Your task to perform on an android device: What's on my calendar today? Image 0: 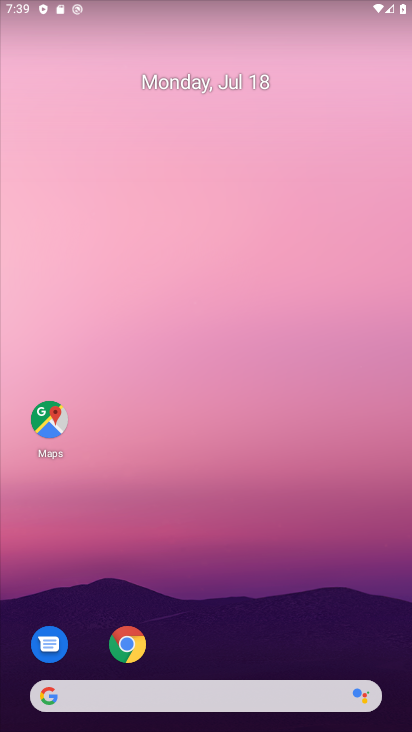
Step 0: press home button
Your task to perform on an android device: What's on my calendar today? Image 1: 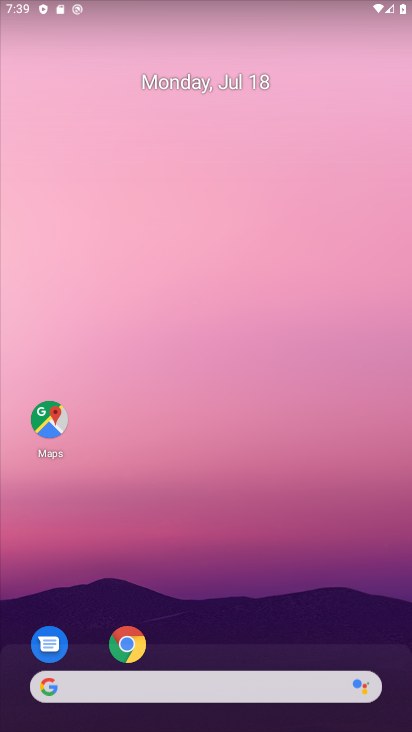
Step 1: drag from (211, 640) to (241, 34)
Your task to perform on an android device: What's on my calendar today? Image 2: 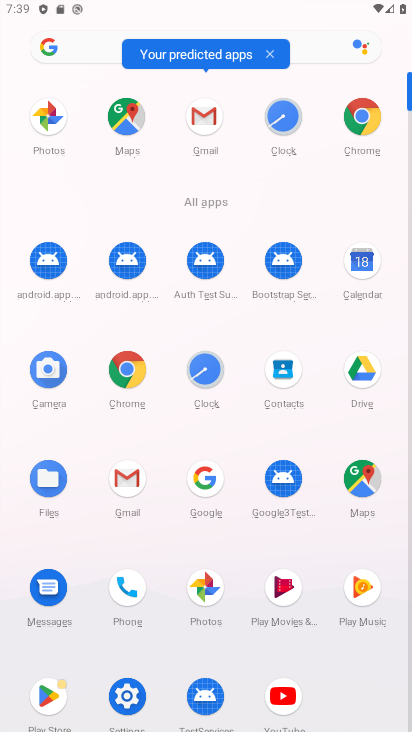
Step 2: click (362, 264)
Your task to perform on an android device: What's on my calendar today? Image 3: 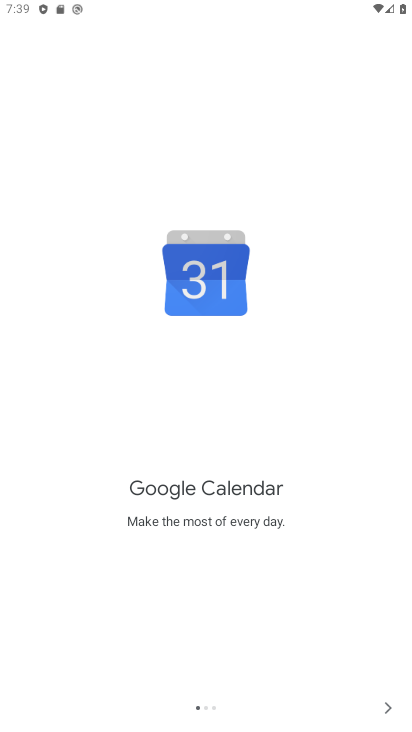
Step 3: click (391, 700)
Your task to perform on an android device: What's on my calendar today? Image 4: 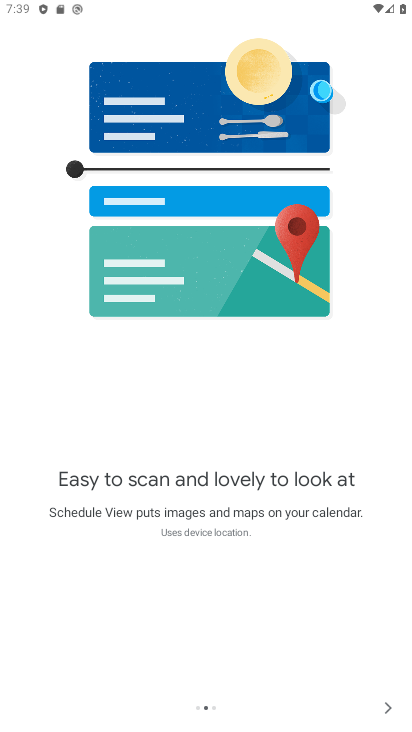
Step 4: click (390, 698)
Your task to perform on an android device: What's on my calendar today? Image 5: 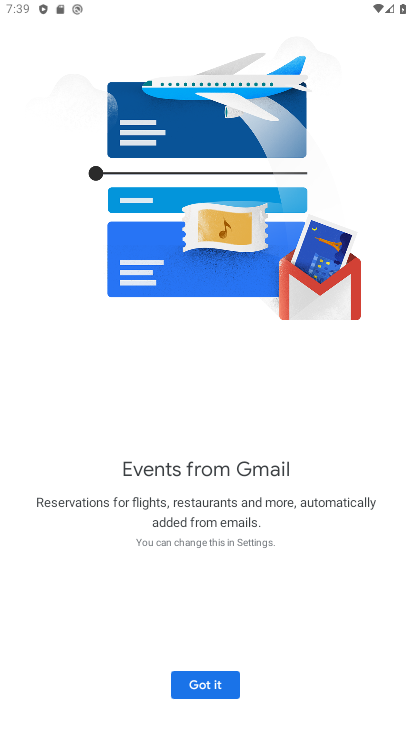
Step 5: click (199, 679)
Your task to perform on an android device: What's on my calendar today? Image 6: 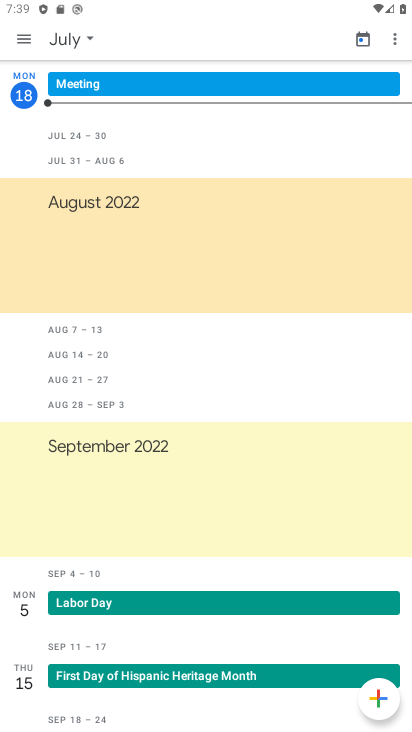
Step 6: click (74, 37)
Your task to perform on an android device: What's on my calendar today? Image 7: 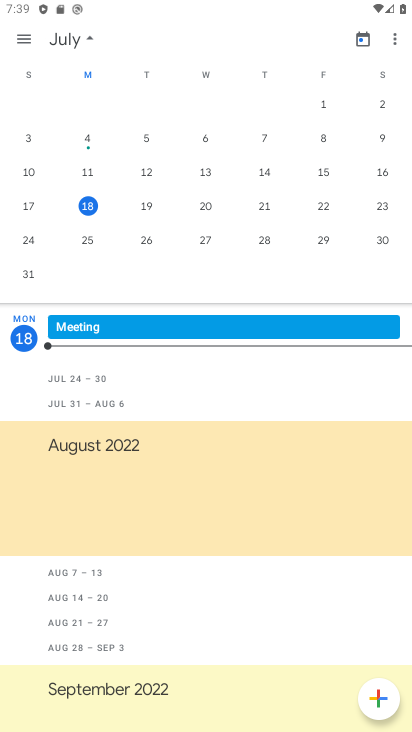
Step 7: click (89, 210)
Your task to perform on an android device: What's on my calendar today? Image 8: 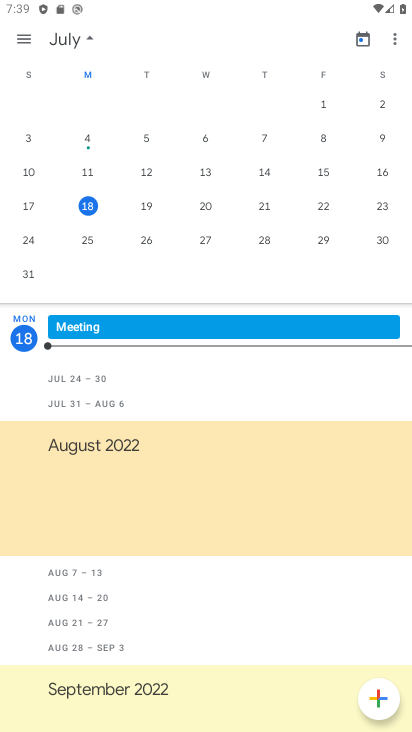
Step 8: click (86, 33)
Your task to perform on an android device: What's on my calendar today? Image 9: 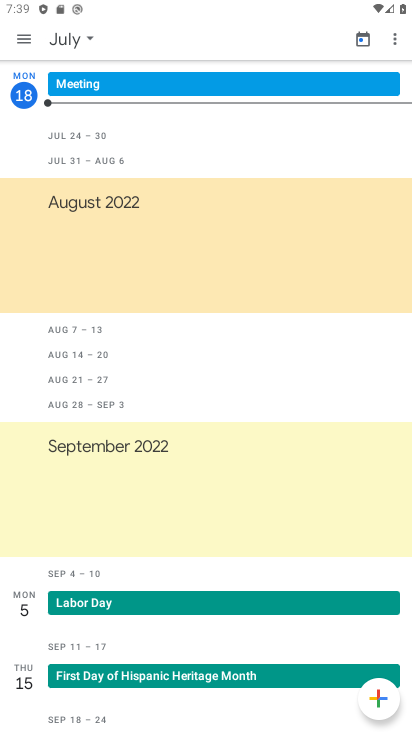
Step 9: click (28, 99)
Your task to perform on an android device: What's on my calendar today? Image 10: 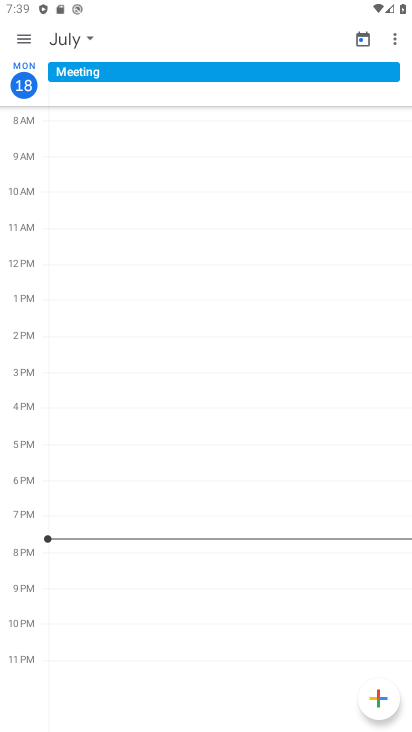
Step 10: task complete